Your task to perform on an android device: add a contact in the contacts app Image 0: 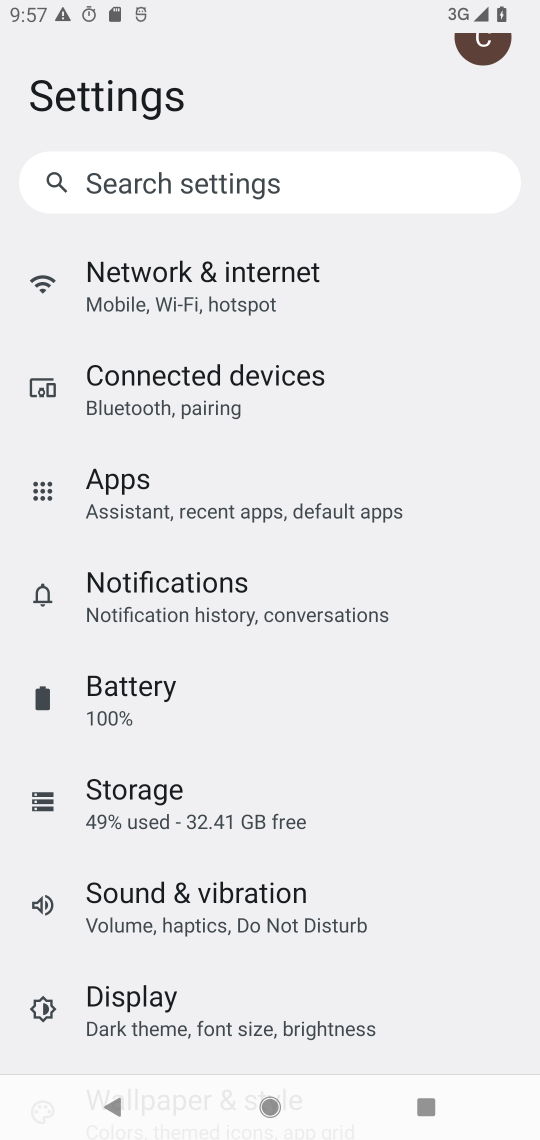
Step 0: press home button
Your task to perform on an android device: add a contact in the contacts app Image 1: 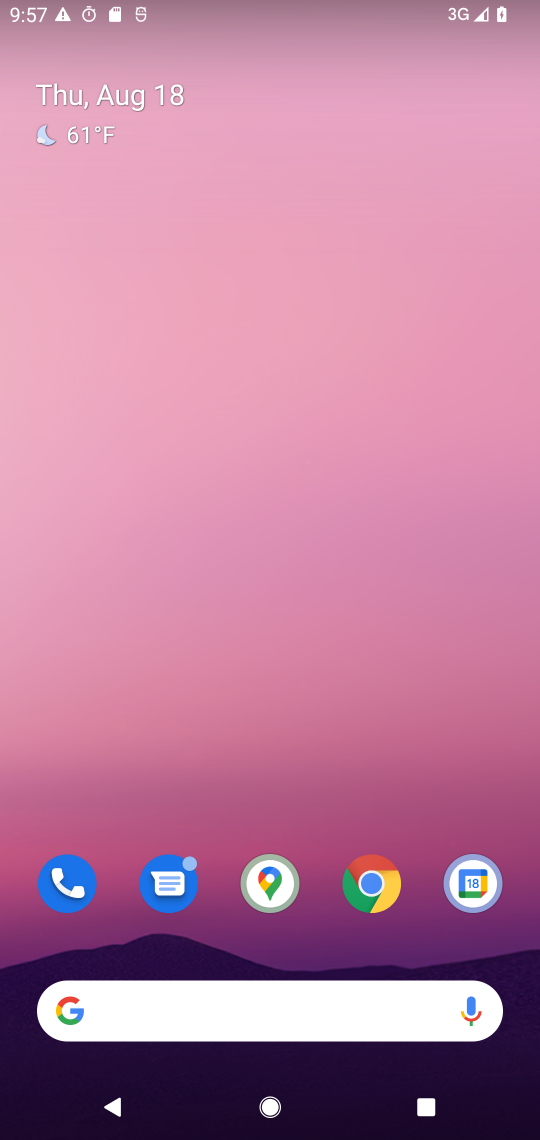
Step 1: click (56, 848)
Your task to perform on an android device: add a contact in the contacts app Image 2: 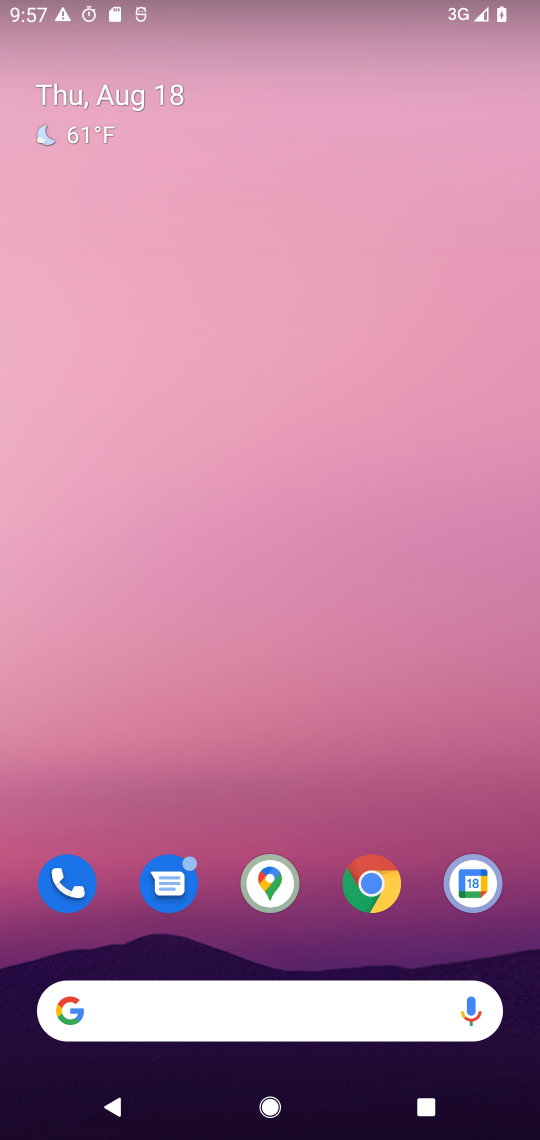
Step 2: click (67, 878)
Your task to perform on an android device: add a contact in the contacts app Image 3: 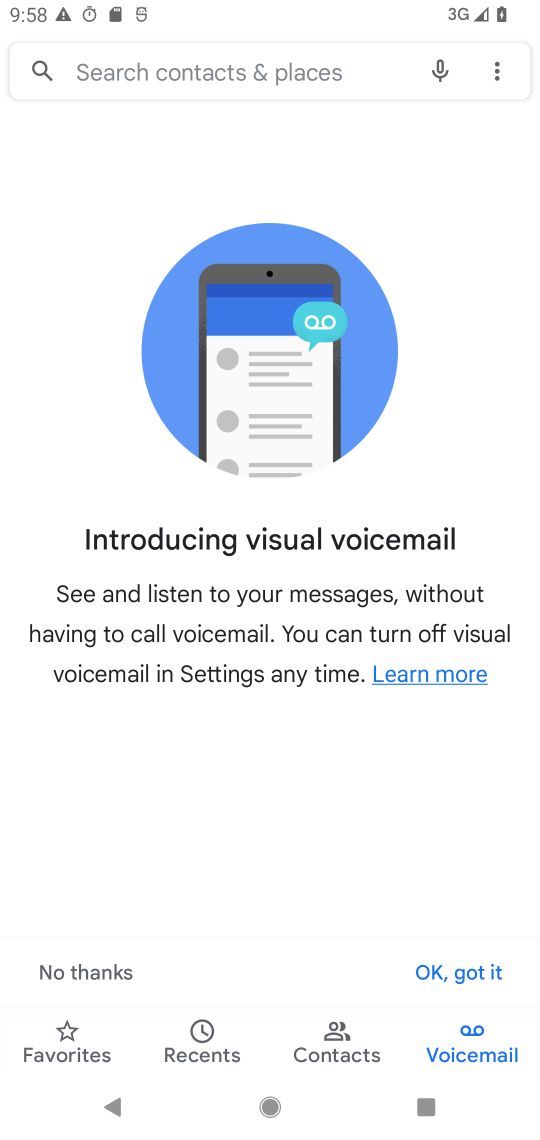
Step 3: click (344, 1036)
Your task to perform on an android device: add a contact in the contacts app Image 4: 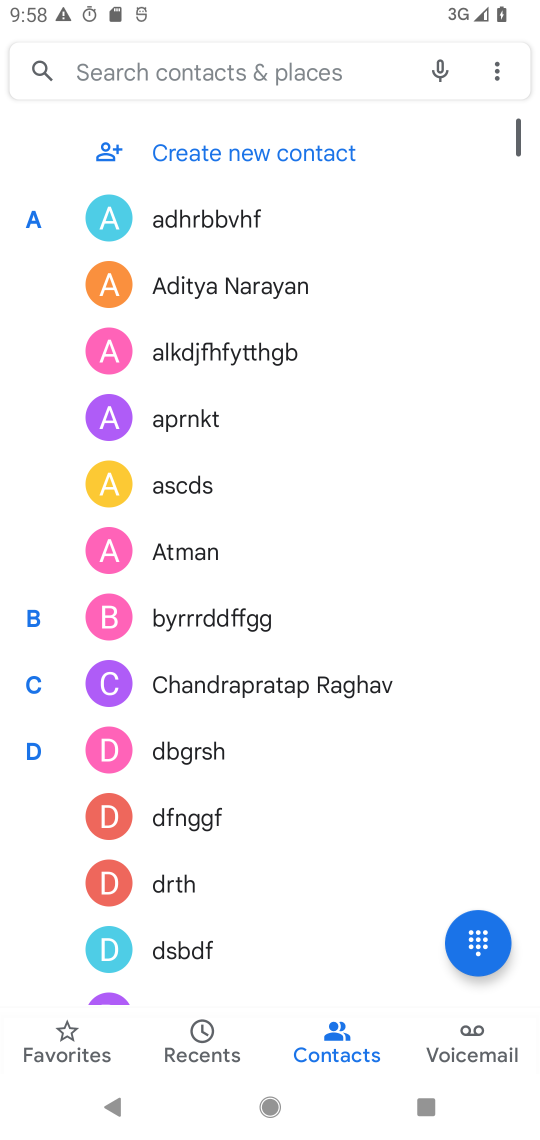
Step 4: click (194, 129)
Your task to perform on an android device: add a contact in the contacts app Image 5: 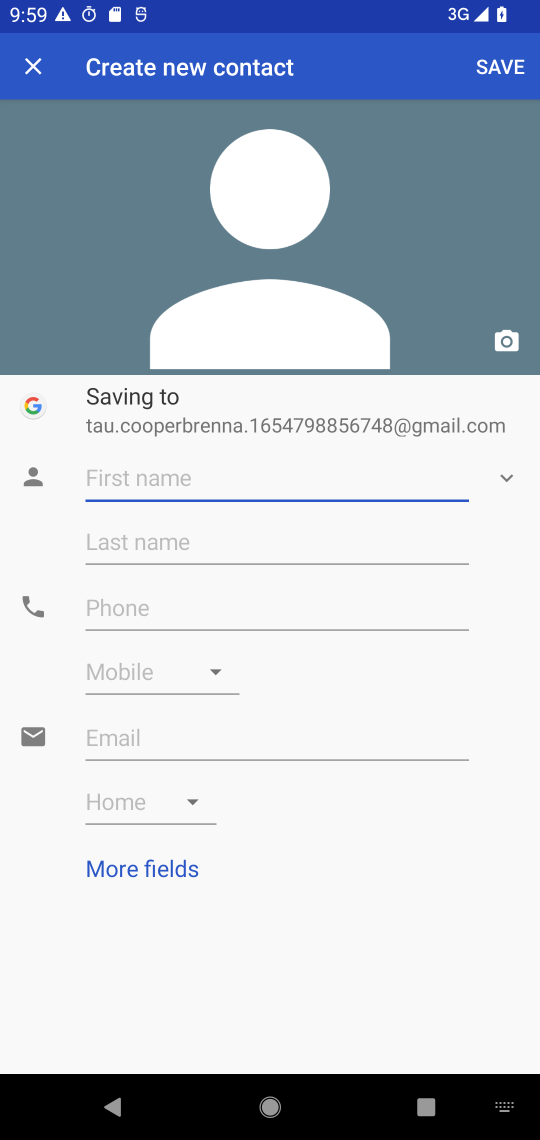
Step 5: type "dbd"
Your task to perform on an android device: add a contact in the contacts app Image 6: 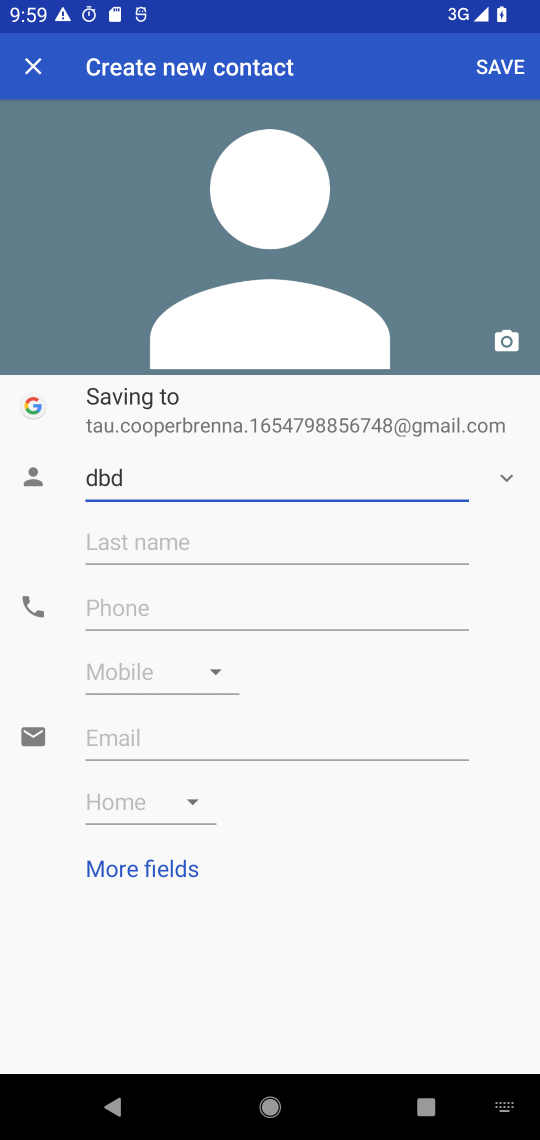
Step 6: click (513, 64)
Your task to perform on an android device: add a contact in the contacts app Image 7: 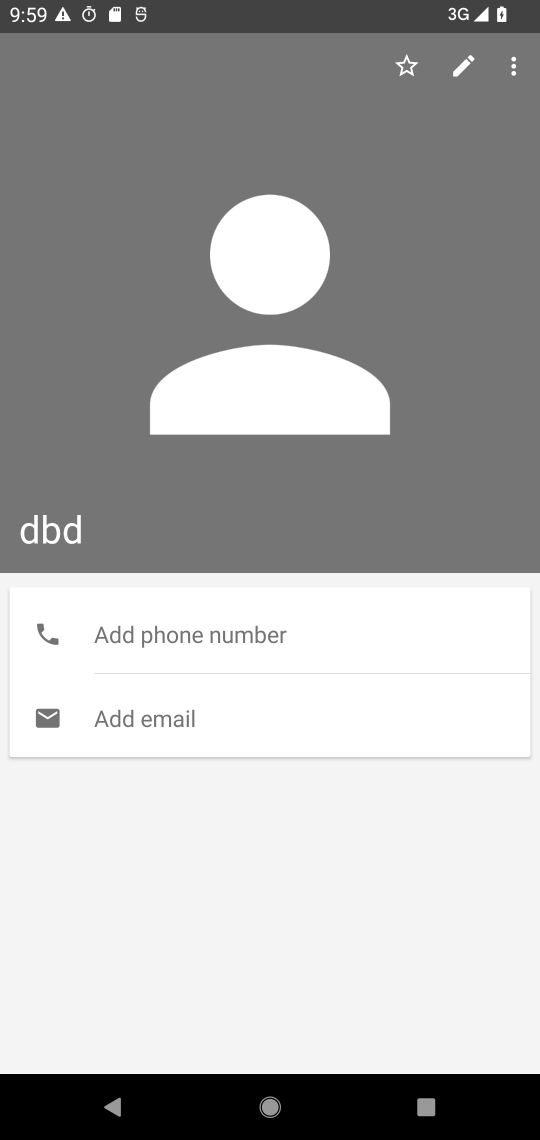
Step 7: task complete